Your task to perform on an android device: Open CNN.com Image 0: 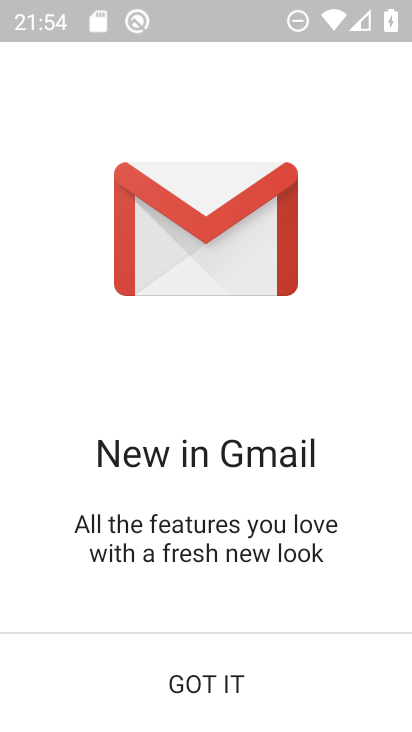
Step 0: press home button
Your task to perform on an android device: Open CNN.com Image 1: 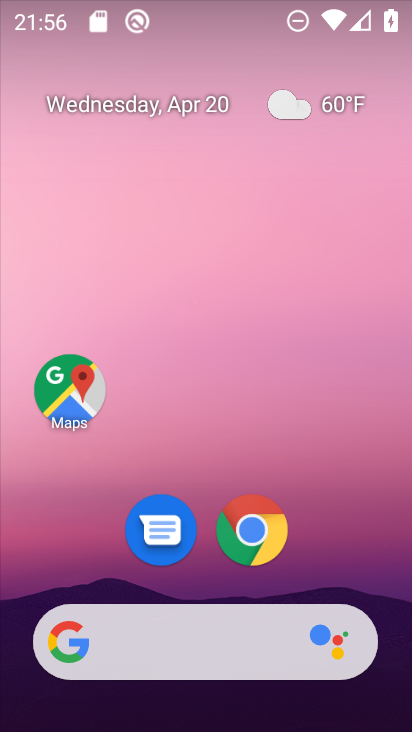
Step 1: click (258, 640)
Your task to perform on an android device: Open CNN.com Image 2: 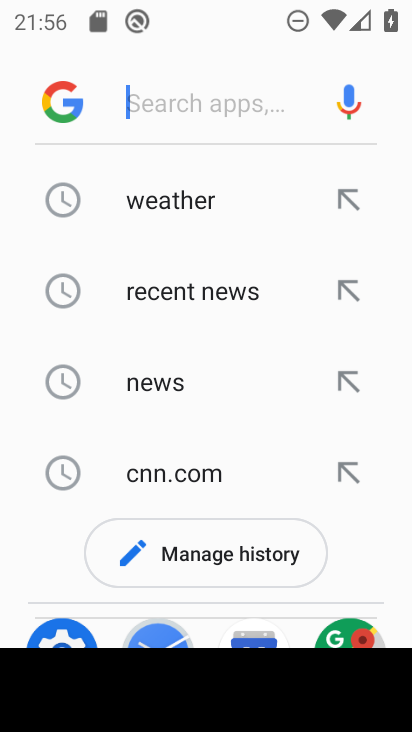
Step 2: type "cnn.com"
Your task to perform on an android device: Open CNN.com Image 3: 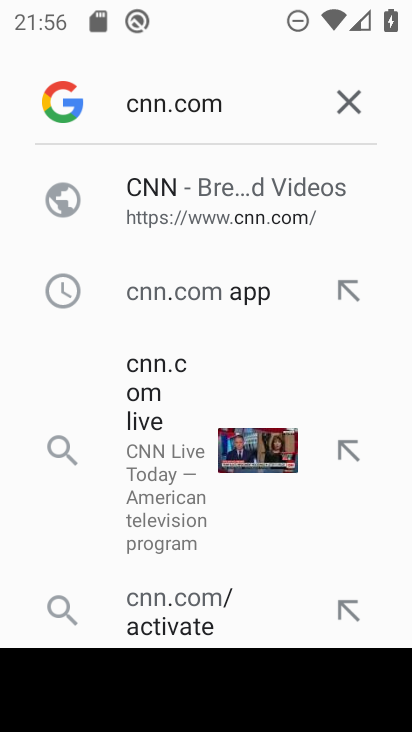
Step 3: click (236, 218)
Your task to perform on an android device: Open CNN.com Image 4: 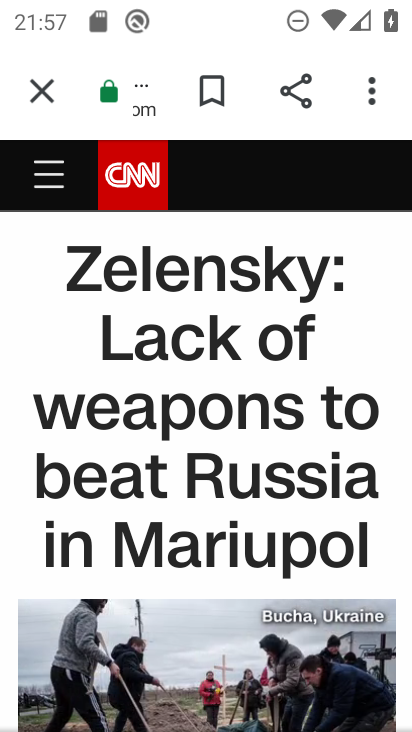
Step 4: task complete